Your task to perform on an android device: Search for "usb-c" on amazon, select the first entry, and add it to the cart. Image 0: 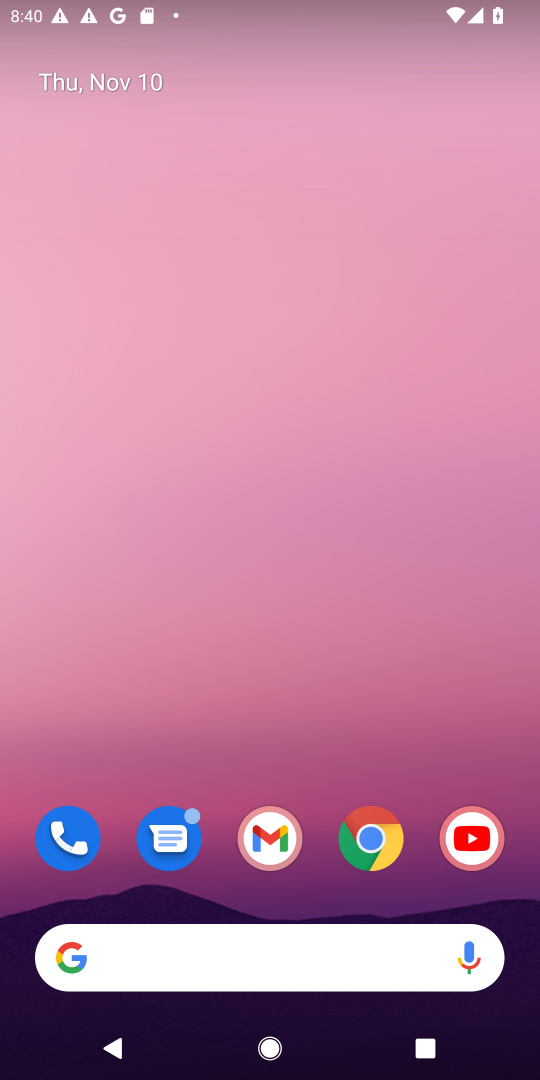
Step 0: drag from (316, 891) to (285, 70)
Your task to perform on an android device: Search for "usb-c" on amazon, select the first entry, and add it to the cart. Image 1: 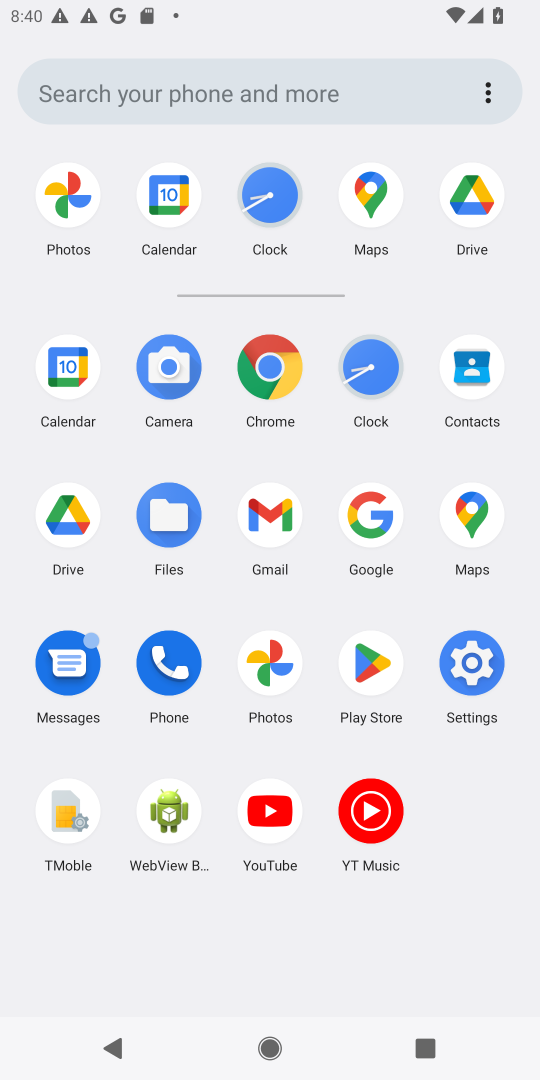
Step 1: click (265, 372)
Your task to perform on an android device: Search for "usb-c" on amazon, select the first entry, and add it to the cart. Image 2: 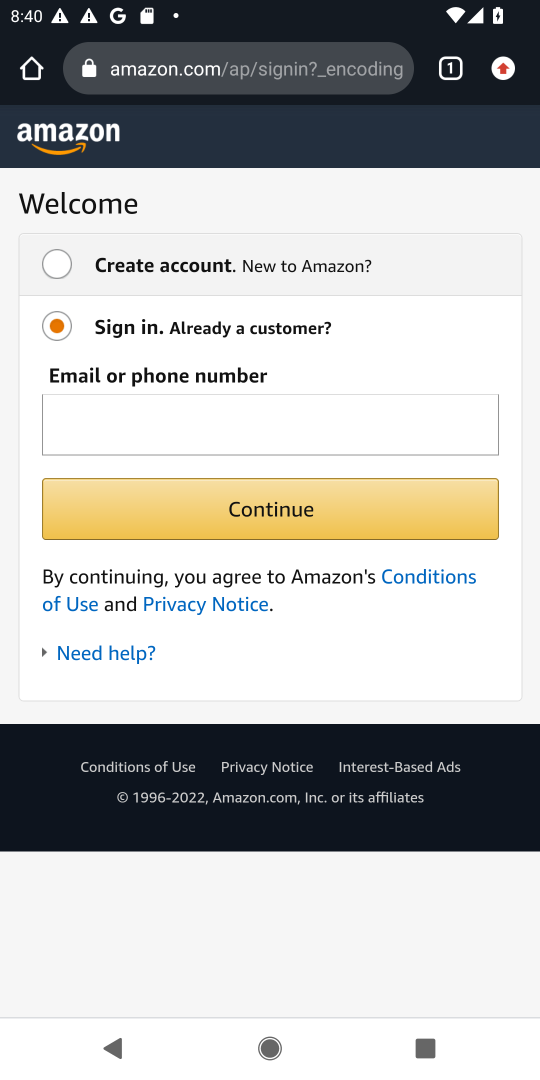
Step 2: click (276, 78)
Your task to perform on an android device: Search for "usb-c" on amazon, select the first entry, and add it to the cart. Image 3: 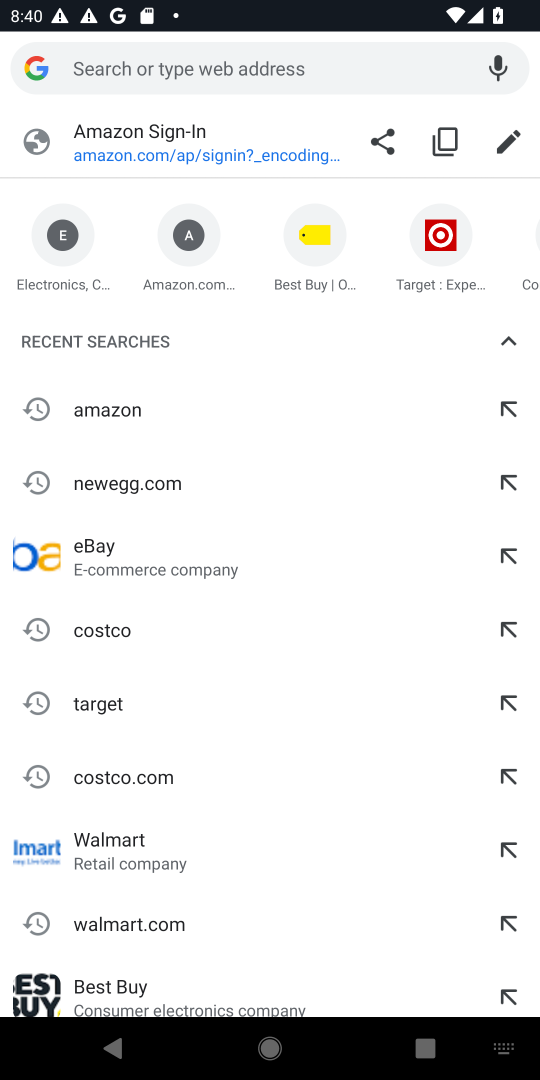
Step 3: type "amazon.com"
Your task to perform on an android device: Search for "usb-c" on amazon, select the first entry, and add it to the cart. Image 4: 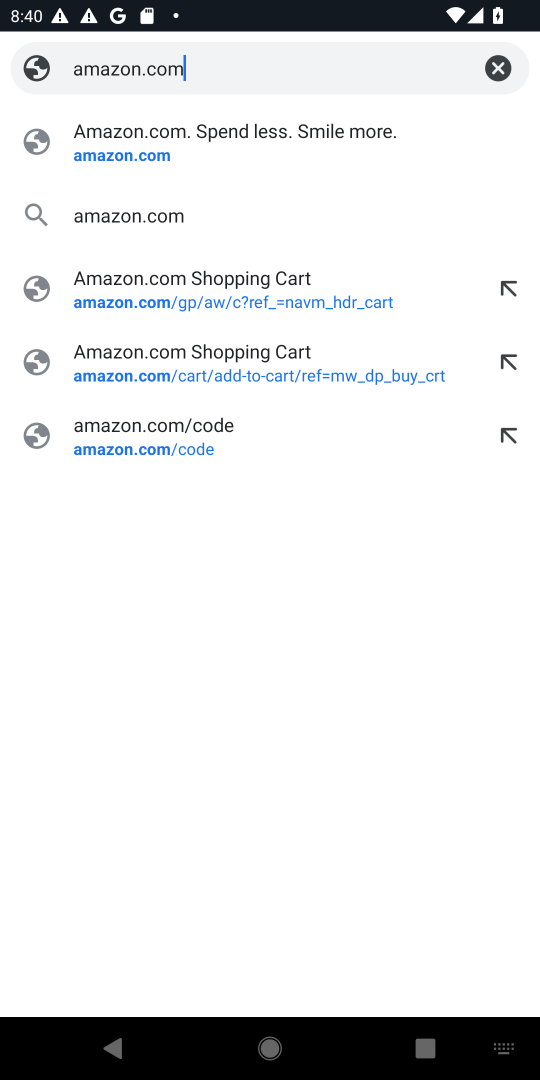
Step 4: press enter
Your task to perform on an android device: Search for "usb-c" on amazon, select the first entry, and add it to the cart. Image 5: 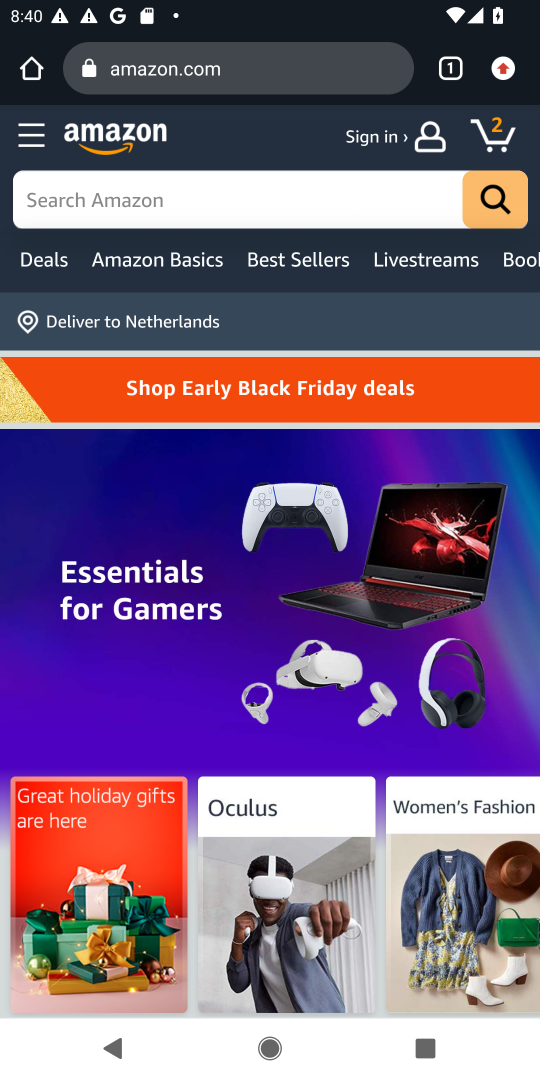
Step 5: click (327, 181)
Your task to perform on an android device: Search for "usb-c" on amazon, select the first entry, and add it to the cart. Image 6: 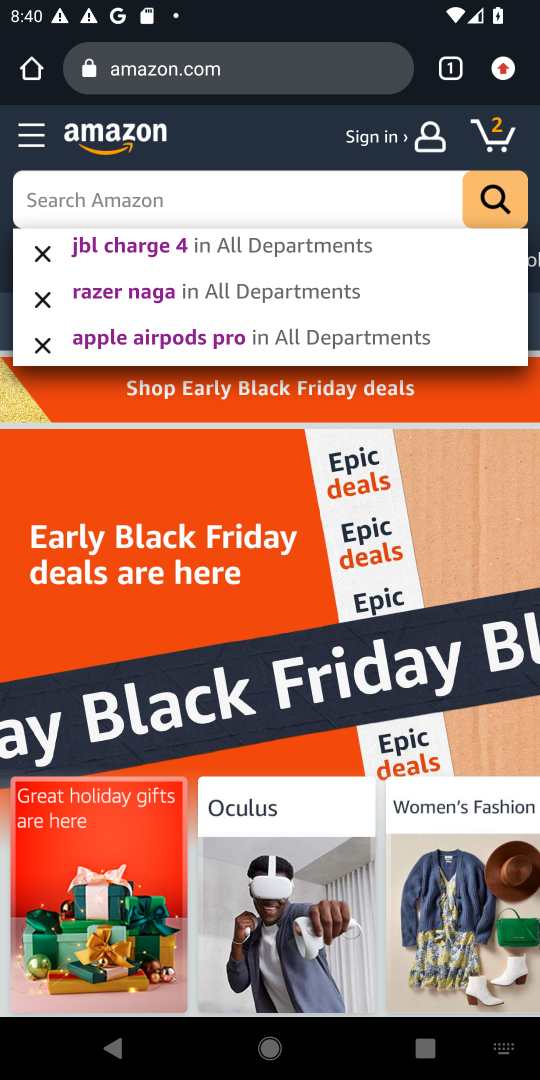
Step 6: type "usb-c"
Your task to perform on an android device: Search for "usb-c" on amazon, select the first entry, and add it to the cart. Image 7: 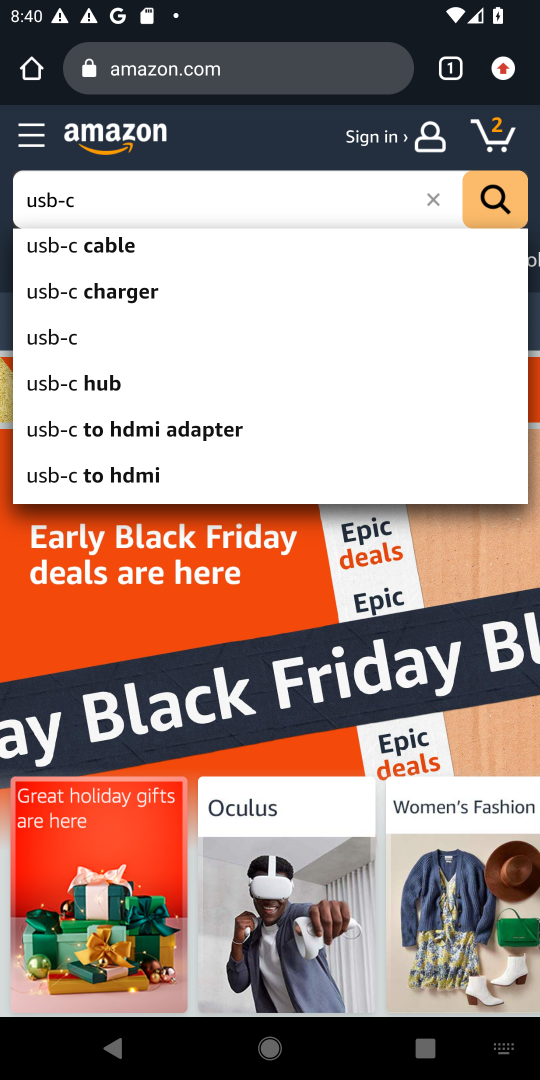
Step 7: press enter
Your task to perform on an android device: Search for "usb-c" on amazon, select the first entry, and add it to the cart. Image 8: 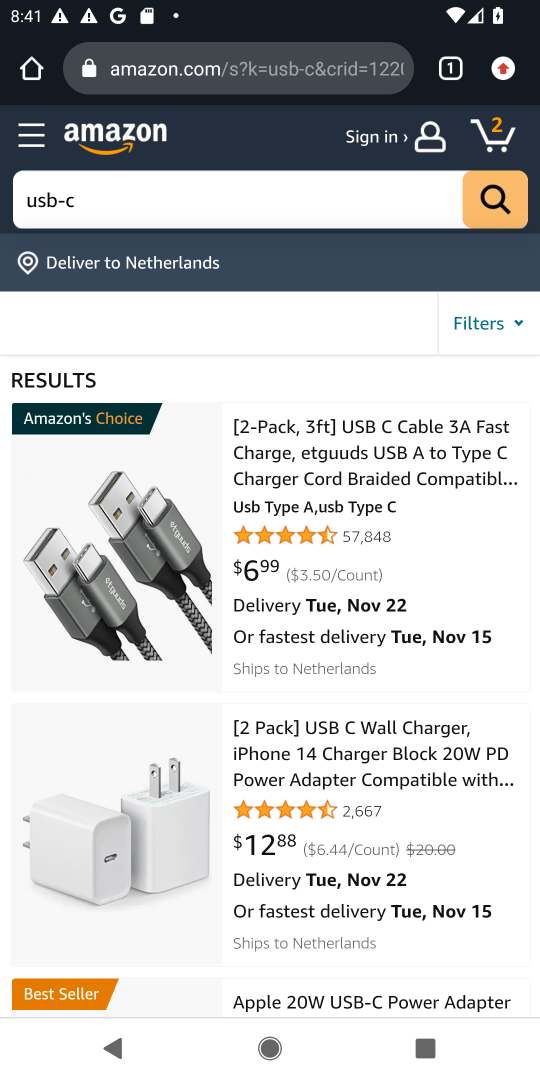
Step 8: click (303, 467)
Your task to perform on an android device: Search for "usb-c" on amazon, select the first entry, and add it to the cart. Image 9: 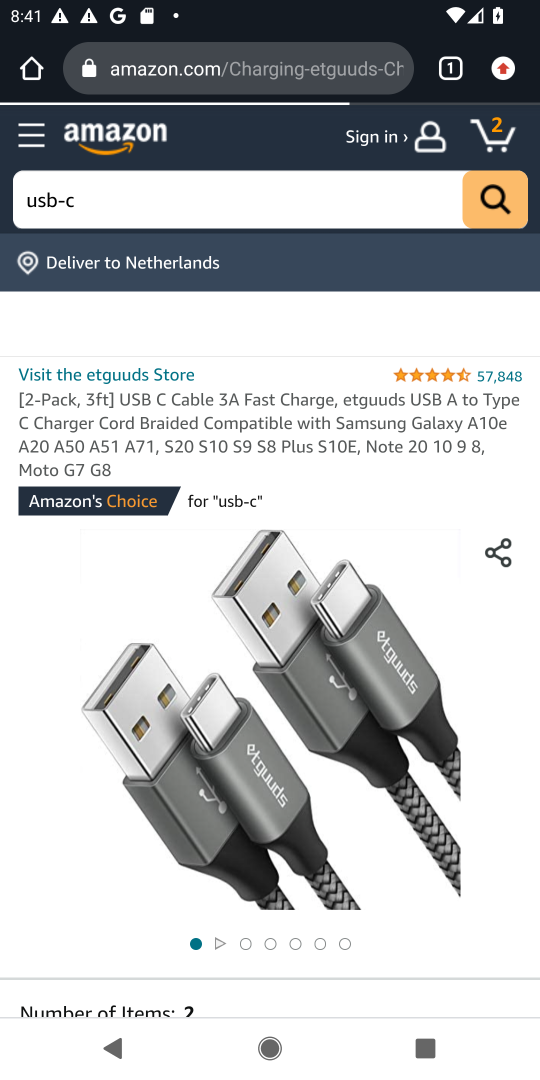
Step 9: drag from (311, 792) to (376, 8)
Your task to perform on an android device: Search for "usb-c" on amazon, select the first entry, and add it to the cart. Image 10: 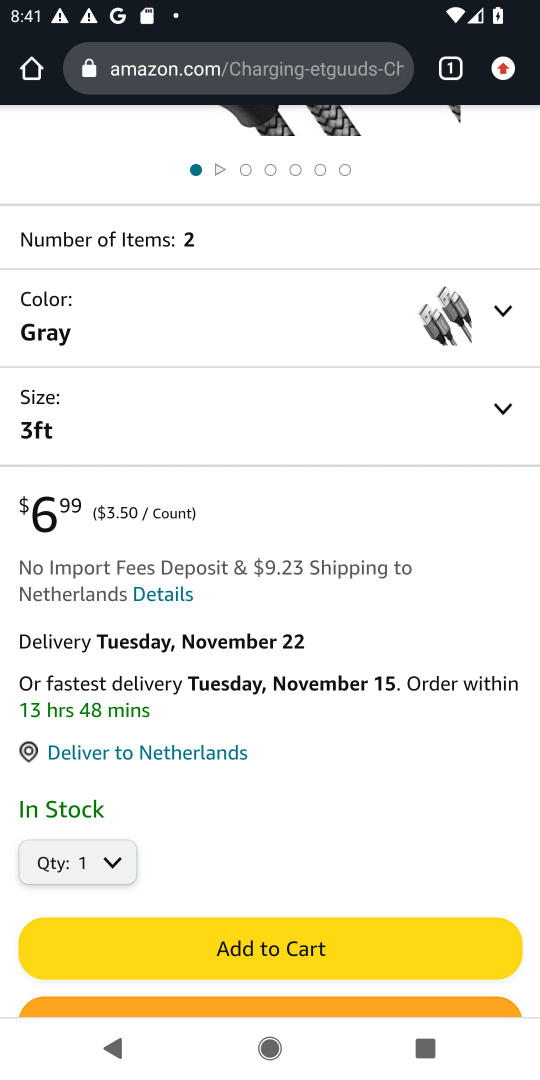
Step 10: click (348, 961)
Your task to perform on an android device: Search for "usb-c" on amazon, select the first entry, and add it to the cart. Image 11: 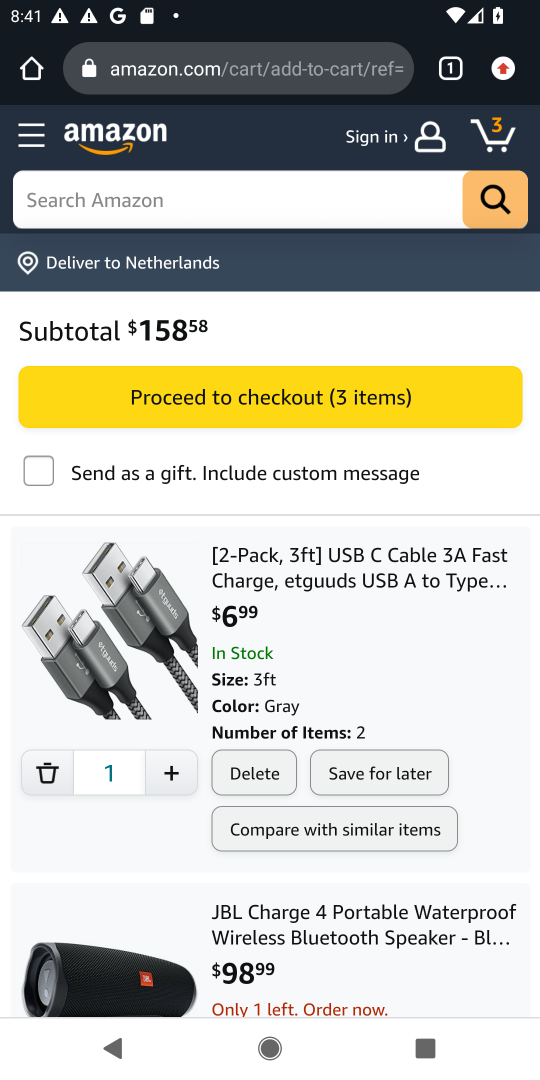
Step 11: task complete